Your task to perform on an android device: Open settings on Google Maps Image 0: 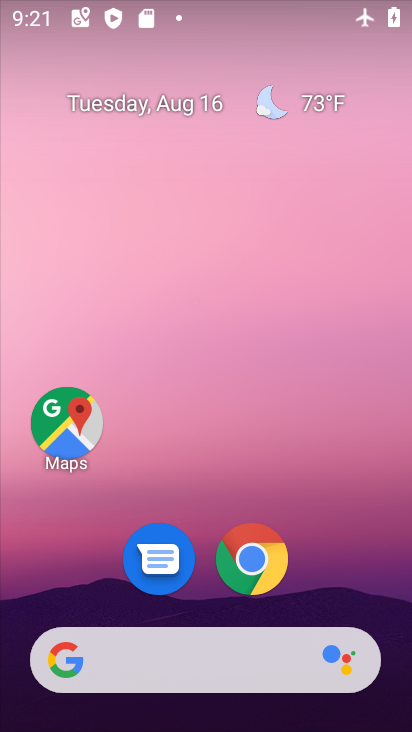
Step 0: drag from (354, 579) to (386, 23)
Your task to perform on an android device: Open settings on Google Maps Image 1: 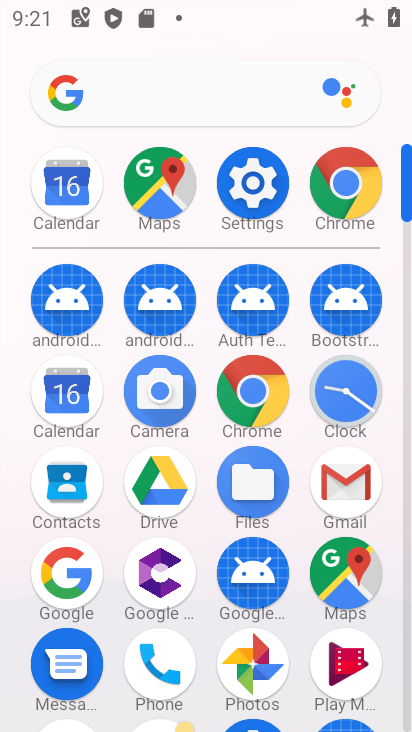
Step 1: click (350, 565)
Your task to perform on an android device: Open settings on Google Maps Image 2: 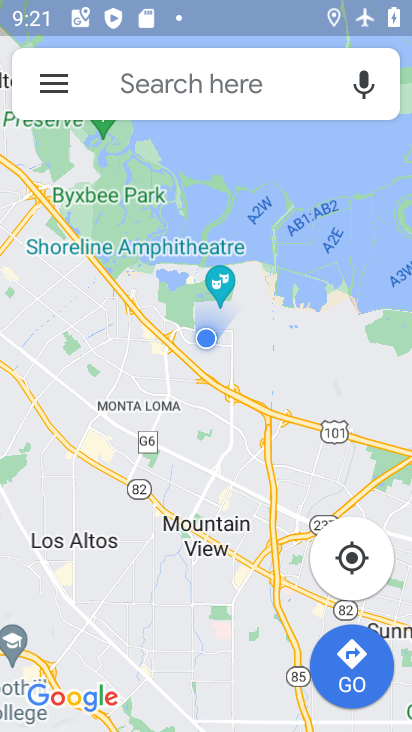
Step 2: click (55, 86)
Your task to perform on an android device: Open settings on Google Maps Image 3: 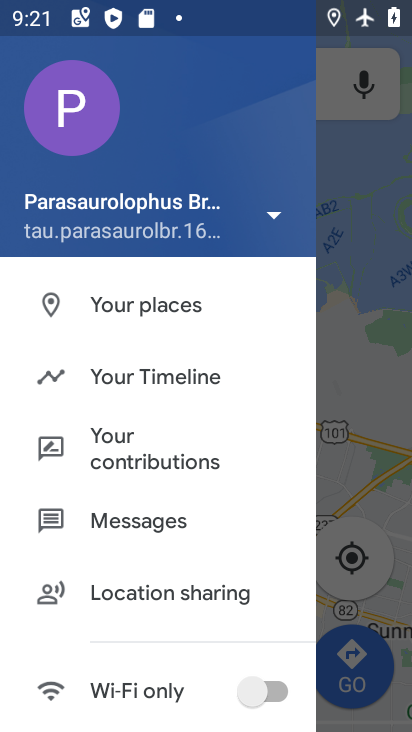
Step 3: drag from (235, 586) to (285, 168)
Your task to perform on an android device: Open settings on Google Maps Image 4: 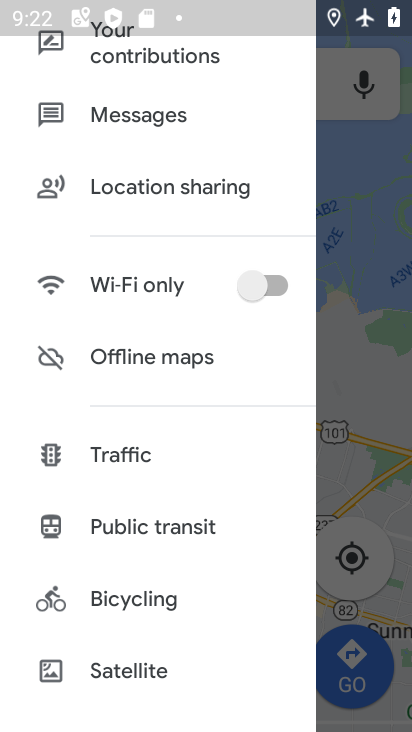
Step 4: drag from (223, 595) to (204, 102)
Your task to perform on an android device: Open settings on Google Maps Image 5: 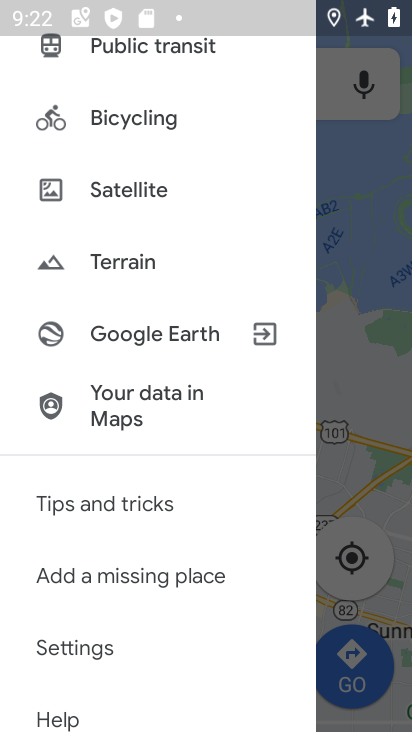
Step 5: click (94, 647)
Your task to perform on an android device: Open settings on Google Maps Image 6: 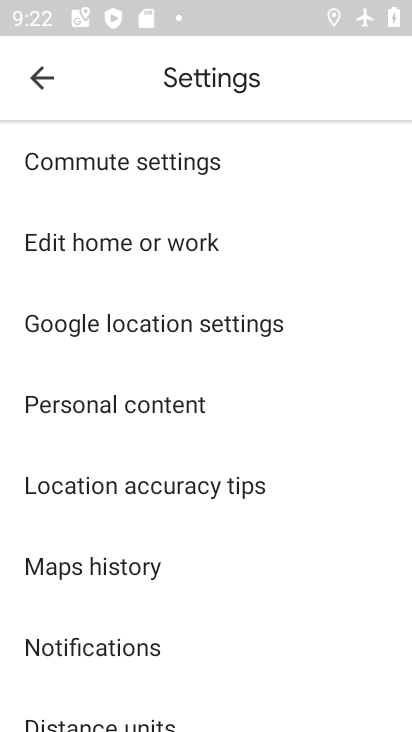
Step 6: task complete